Your task to perform on an android device: open wifi settings Image 0: 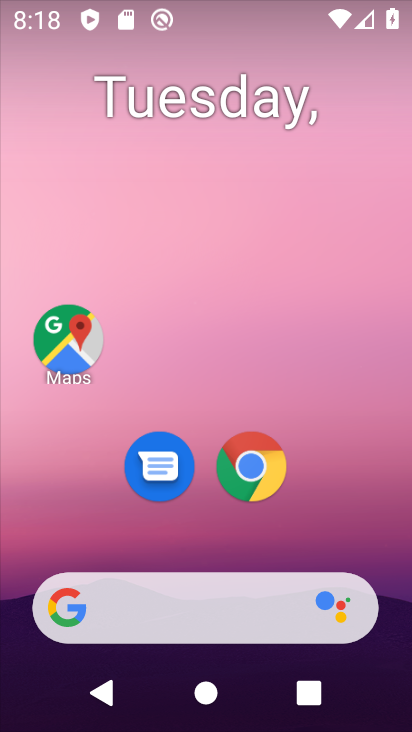
Step 0: drag from (371, 555) to (336, 24)
Your task to perform on an android device: open wifi settings Image 1: 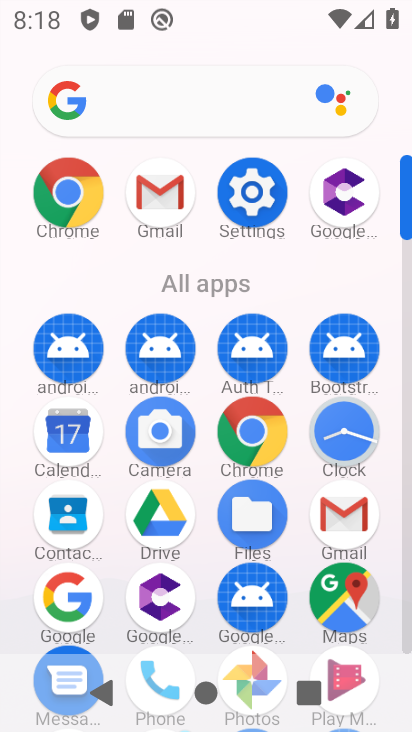
Step 1: click (264, 195)
Your task to perform on an android device: open wifi settings Image 2: 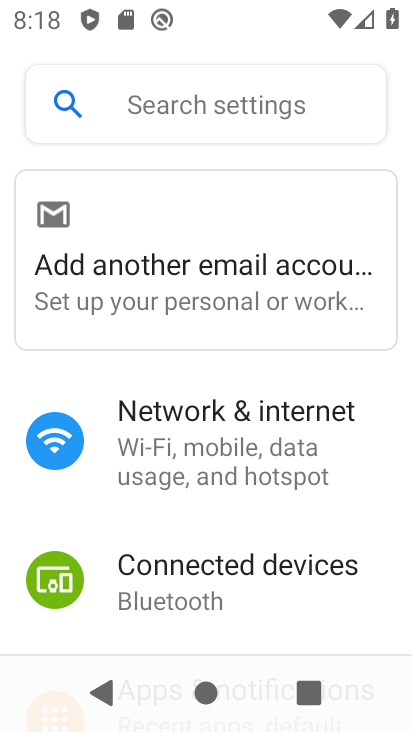
Step 2: click (269, 426)
Your task to perform on an android device: open wifi settings Image 3: 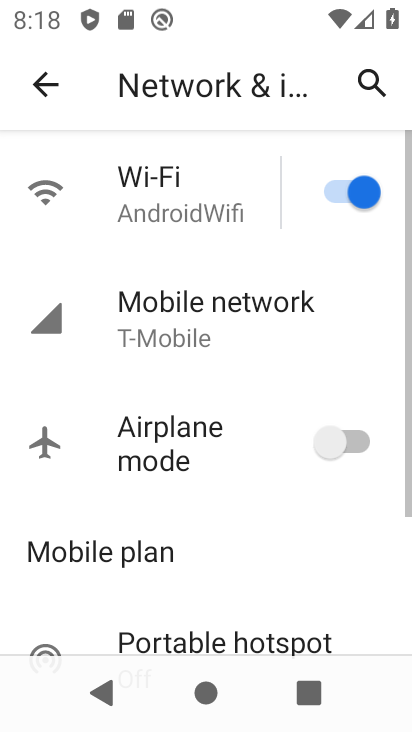
Step 3: click (194, 168)
Your task to perform on an android device: open wifi settings Image 4: 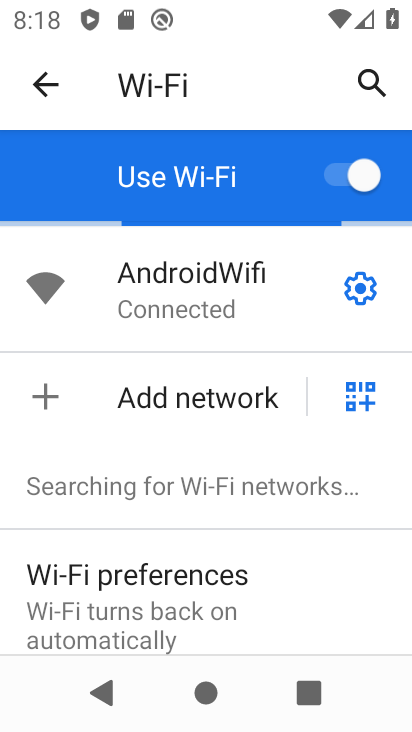
Step 4: task complete